Your task to perform on an android device: Search for vegetarian restaurants on Maps Image 0: 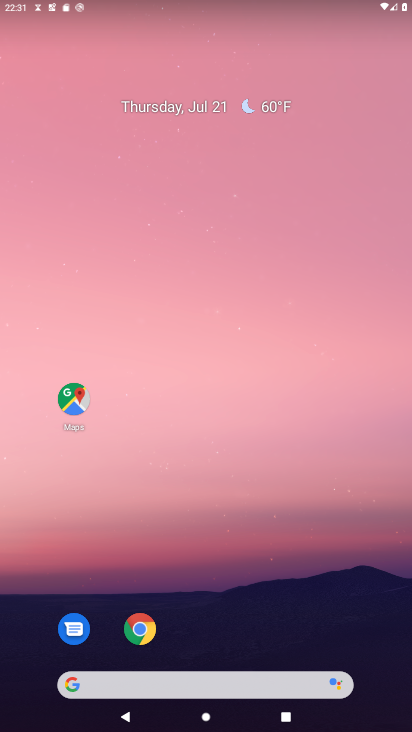
Step 0: drag from (222, 617) to (261, 270)
Your task to perform on an android device: Search for vegetarian restaurants on Maps Image 1: 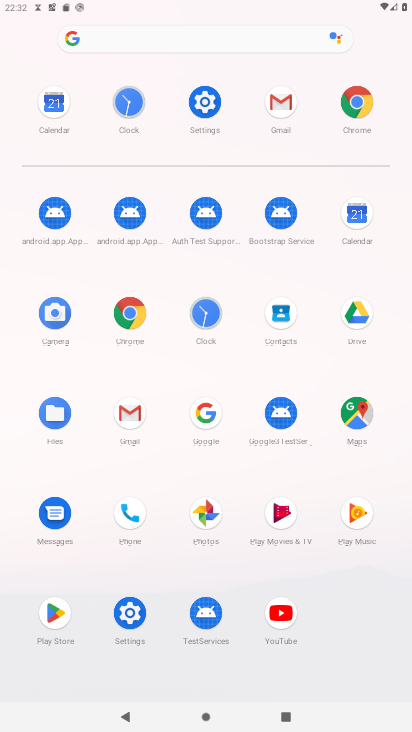
Step 1: click (356, 412)
Your task to perform on an android device: Search for vegetarian restaurants on Maps Image 2: 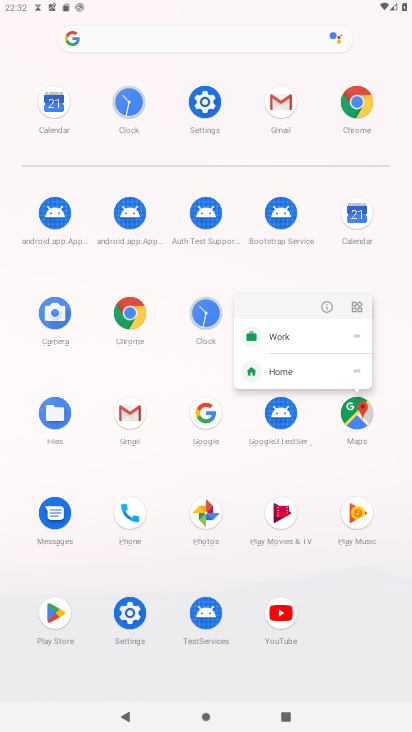
Step 2: click (351, 409)
Your task to perform on an android device: Search for vegetarian restaurants on Maps Image 3: 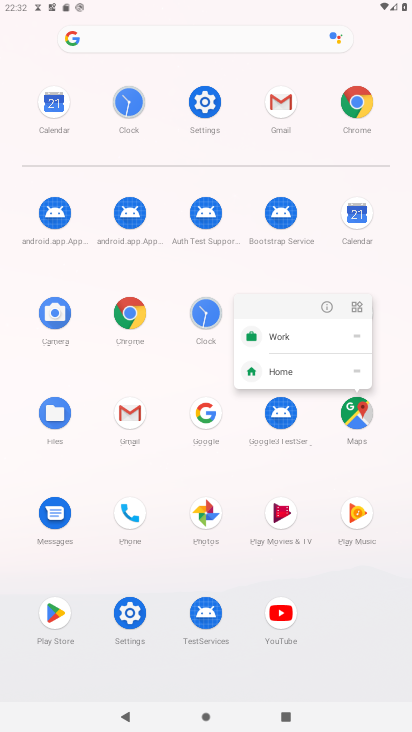
Step 3: click (355, 407)
Your task to perform on an android device: Search for vegetarian restaurants on Maps Image 4: 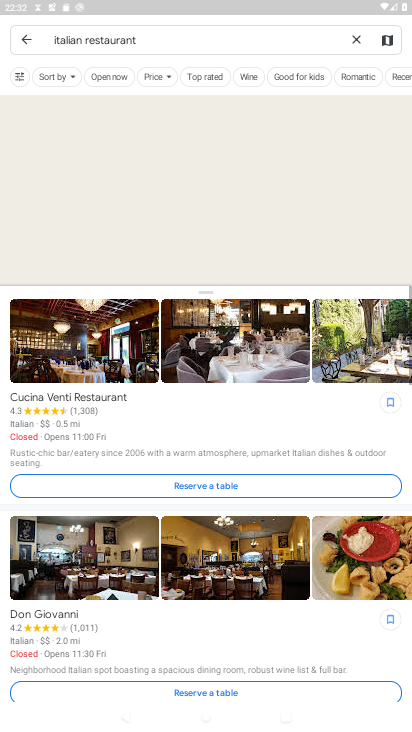
Step 4: click (355, 40)
Your task to perform on an android device: Search for vegetarian restaurants on Maps Image 5: 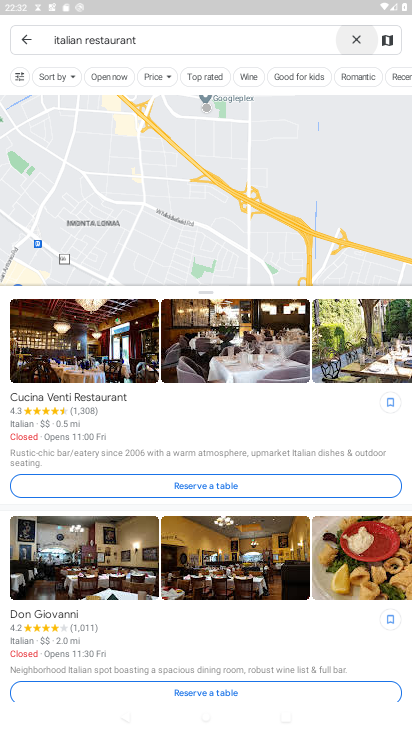
Step 5: click (198, 30)
Your task to perform on an android device: Search for vegetarian restaurants on Maps Image 6: 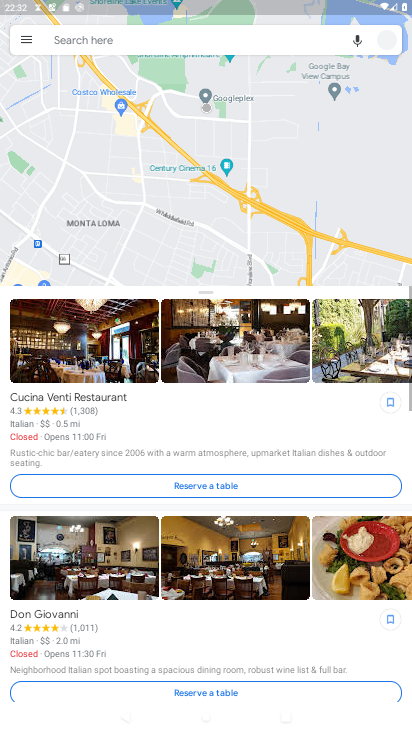
Step 6: click (226, 34)
Your task to perform on an android device: Search for vegetarian restaurants on Maps Image 7: 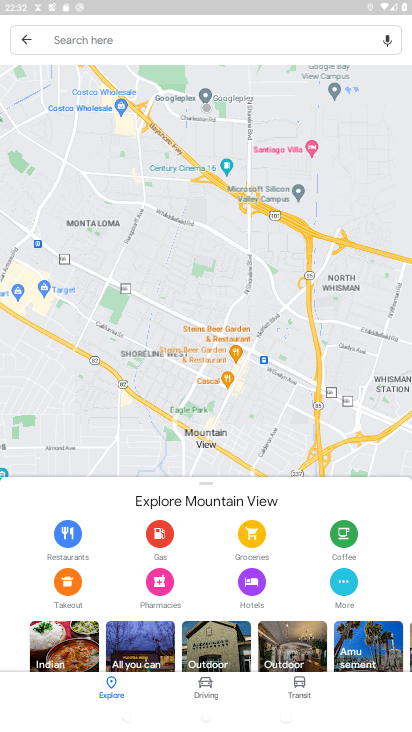
Step 7: click (124, 37)
Your task to perform on an android device: Search for vegetarian restaurants on Maps Image 8: 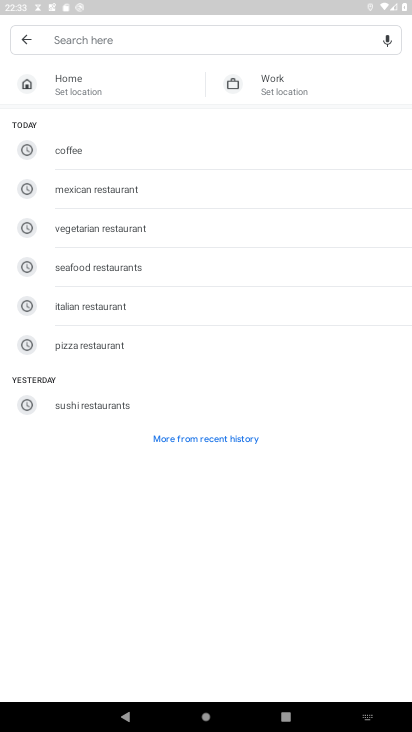
Step 8: click (137, 229)
Your task to perform on an android device: Search for vegetarian restaurants on Maps Image 9: 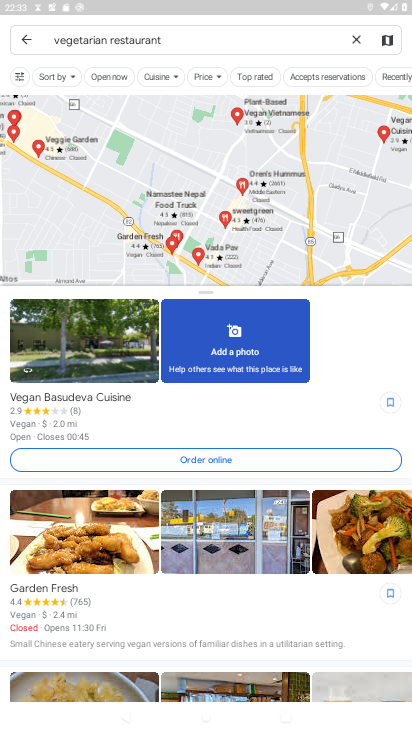
Step 9: task complete